Your task to perform on an android device: Go to ESPN.com Image 0: 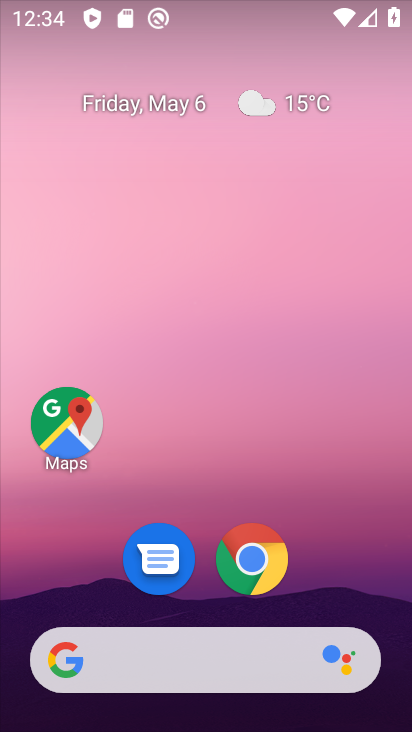
Step 0: click (196, 657)
Your task to perform on an android device: Go to ESPN.com Image 1: 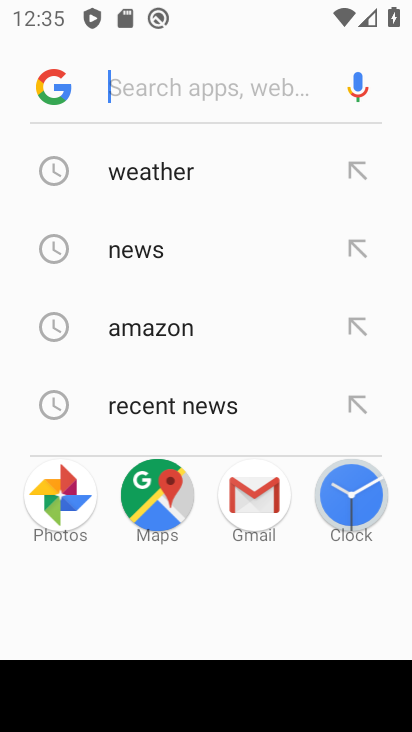
Step 1: type "espn"
Your task to perform on an android device: Go to ESPN.com Image 2: 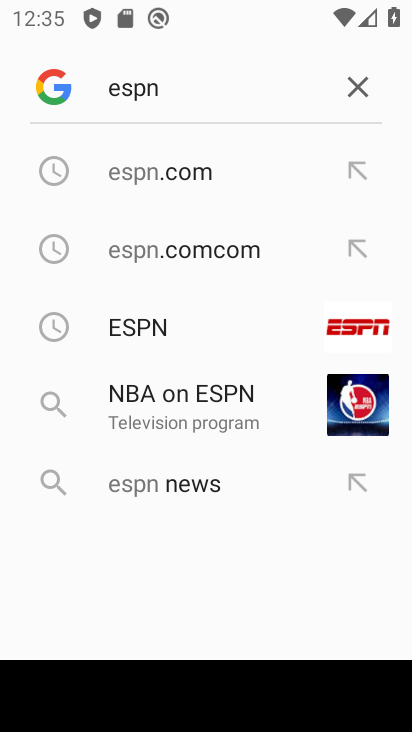
Step 2: click (179, 170)
Your task to perform on an android device: Go to ESPN.com Image 3: 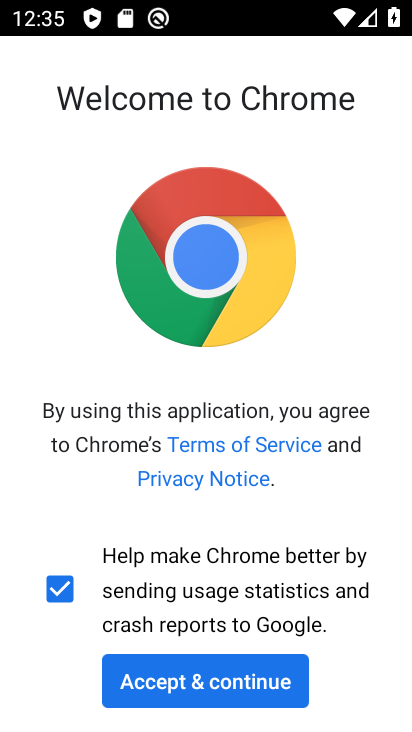
Step 3: click (190, 662)
Your task to perform on an android device: Go to ESPN.com Image 4: 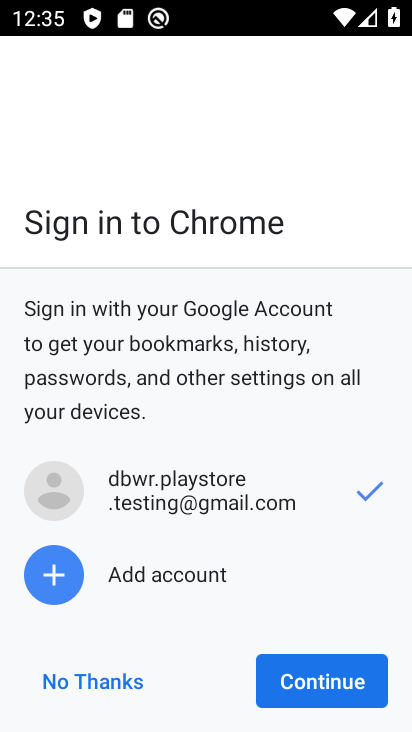
Step 4: click (315, 687)
Your task to perform on an android device: Go to ESPN.com Image 5: 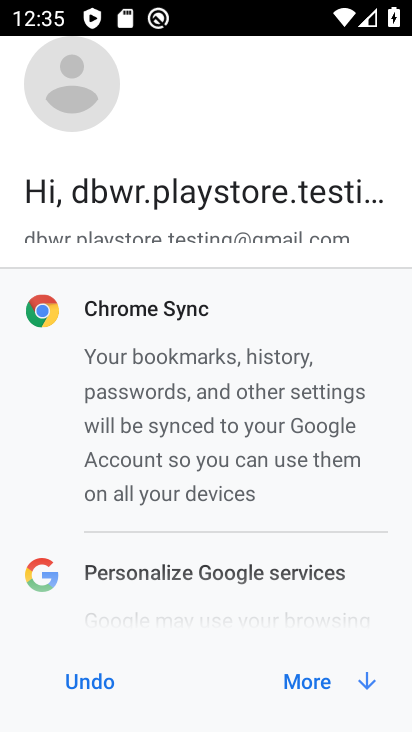
Step 5: click (315, 687)
Your task to perform on an android device: Go to ESPN.com Image 6: 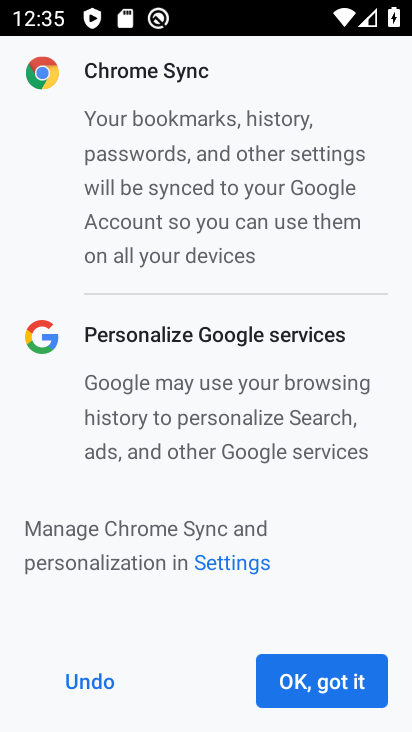
Step 6: click (315, 687)
Your task to perform on an android device: Go to ESPN.com Image 7: 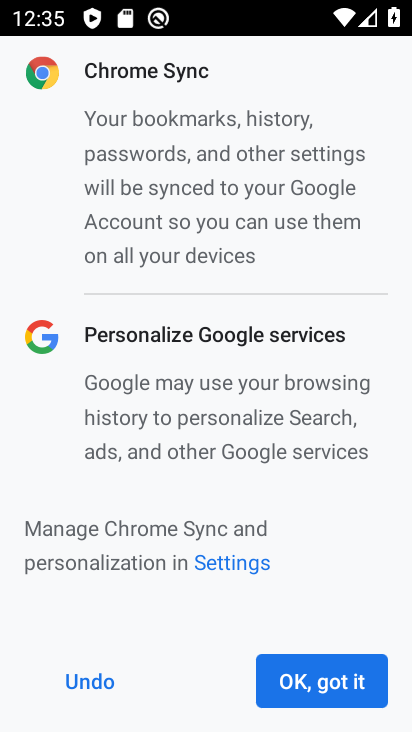
Step 7: click (315, 687)
Your task to perform on an android device: Go to ESPN.com Image 8: 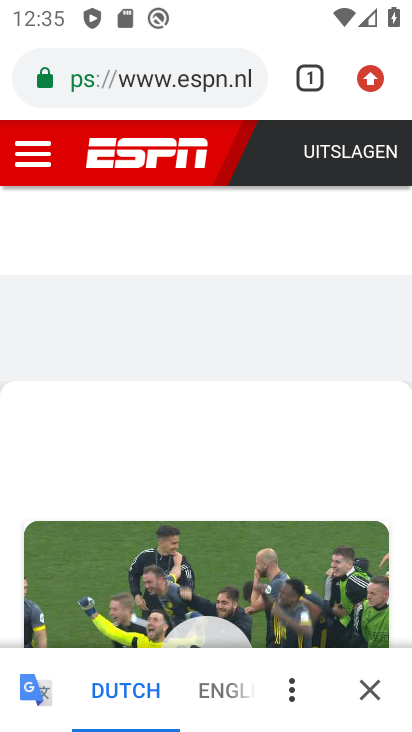
Step 8: task complete